Your task to perform on an android device: Check the news Image 0: 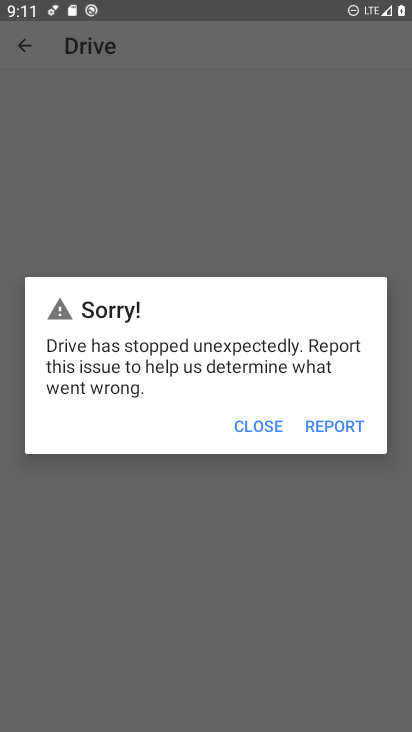
Step 0: press home button
Your task to perform on an android device: Check the news Image 1: 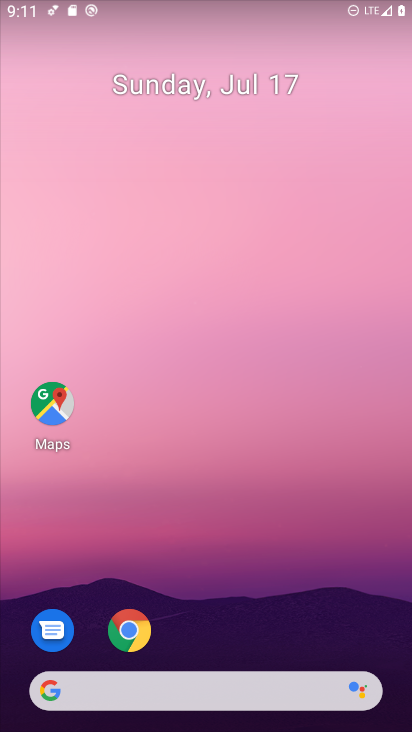
Step 1: drag from (236, 636) to (239, 201)
Your task to perform on an android device: Check the news Image 2: 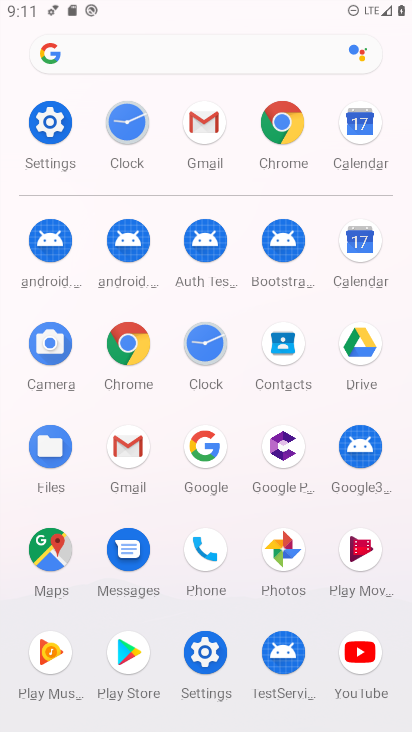
Step 2: click (264, 120)
Your task to perform on an android device: Check the news Image 3: 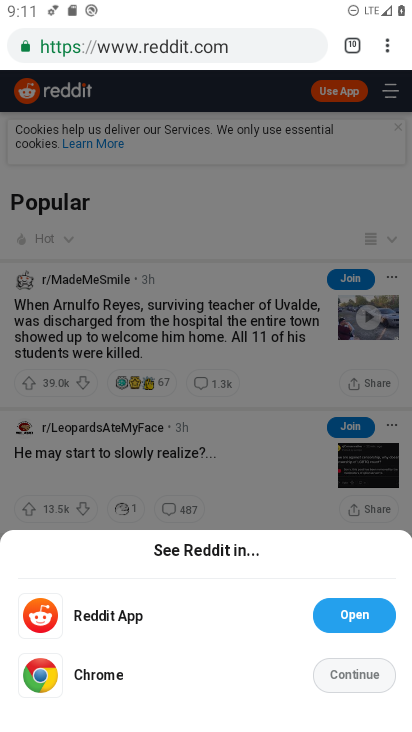
Step 3: click (389, 38)
Your task to perform on an android device: Check the news Image 4: 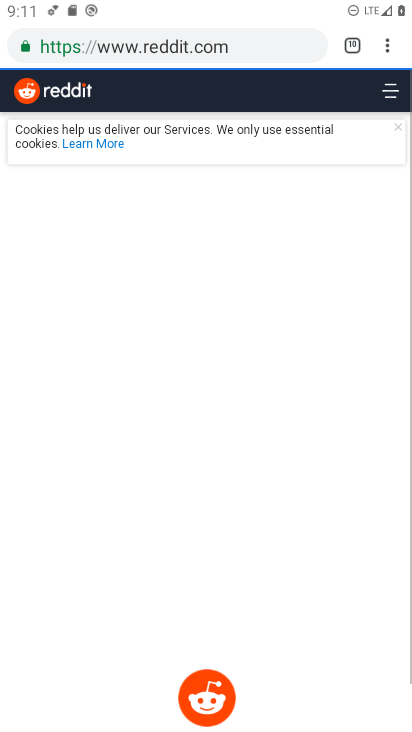
Step 4: click (378, 44)
Your task to perform on an android device: Check the news Image 5: 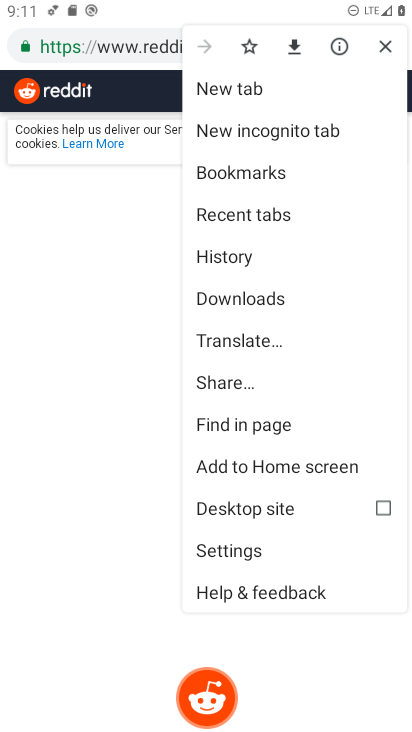
Step 5: click (261, 87)
Your task to perform on an android device: Check the news Image 6: 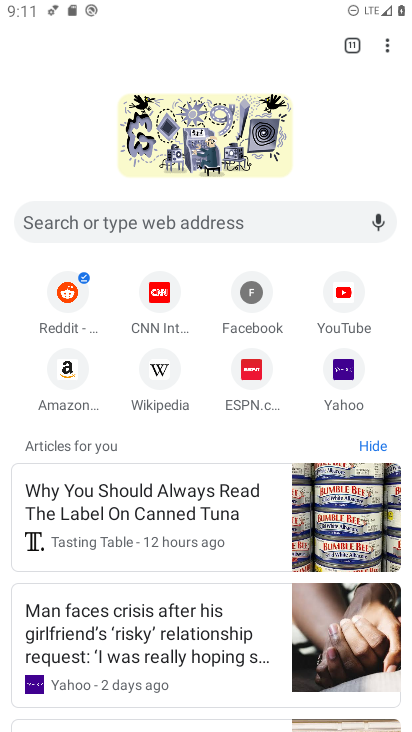
Step 6: click (186, 215)
Your task to perform on an android device: Check the news Image 7: 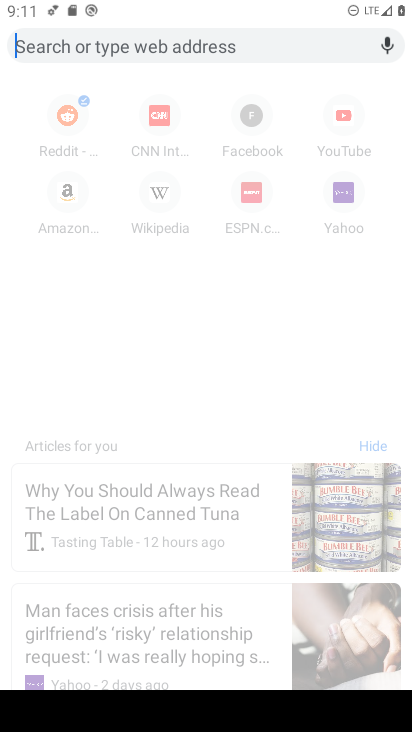
Step 7: type "Check the news "
Your task to perform on an android device: Check the news Image 8: 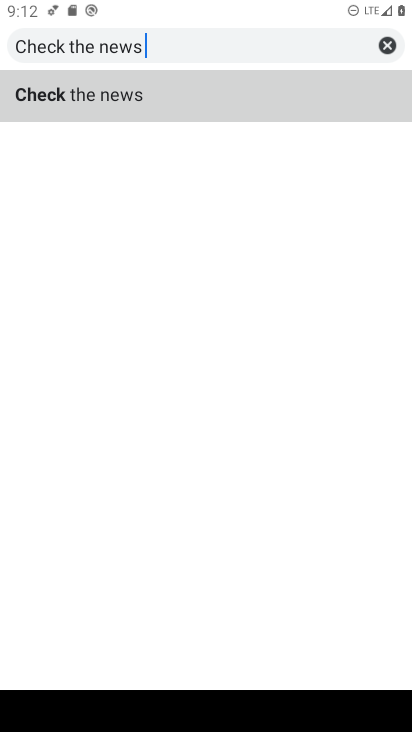
Step 8: click (93, 102)
Your task to perform on an android device: Check the news Image 9: 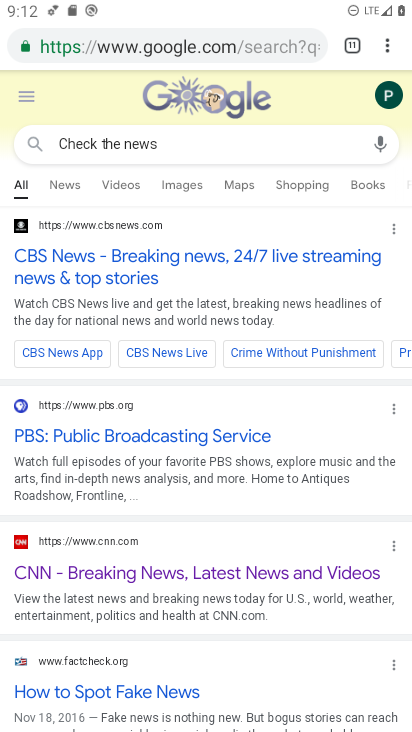
Step 9: task complete